Your task to perform on an android device: find snoozed emails in the gmail app Image 0: 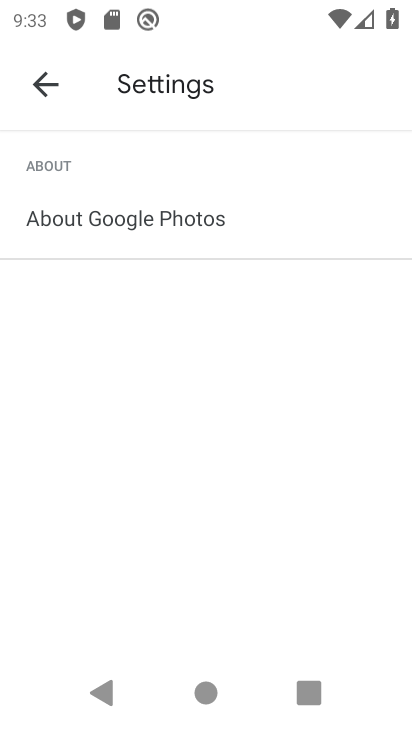
Step 0: press home button
Your task to perform on an android device: find snoozed emails in the gmail app Image 1: 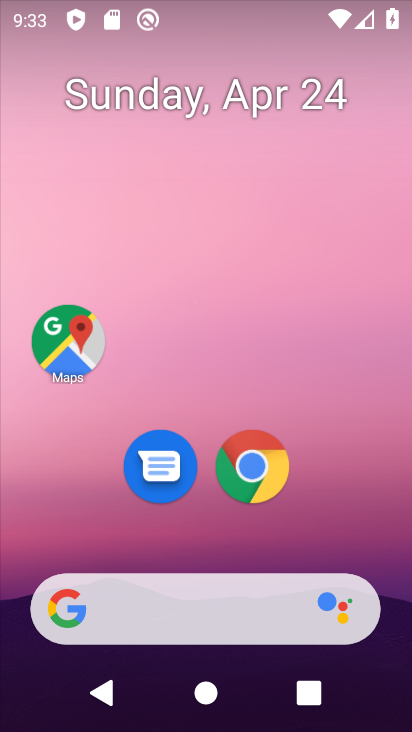
Step 1: drag from (344, 505) to (289, 58)
Your task to perform on an android device: find snoozed emails in the gmail app Image 2: 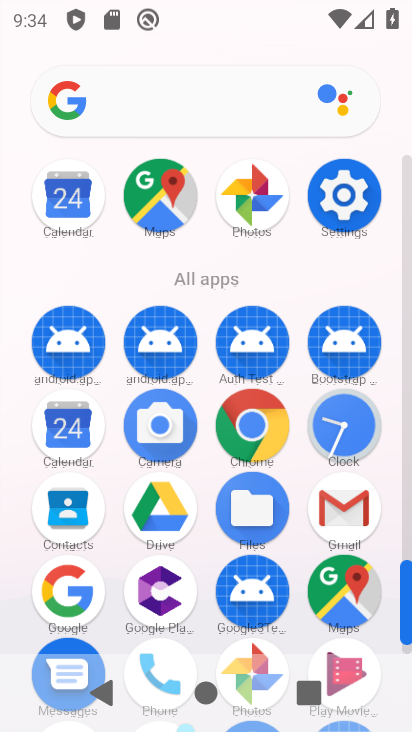
Step 2: click (354, 505)
Your task to perform on an android device: find snoozed emails in the gmail app Image 3: 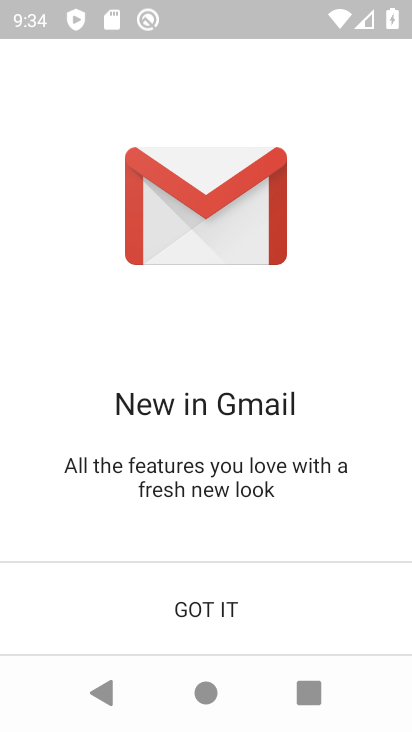
Step 3: click (230, 588)
Your task to perform on an android device: find snoozed emails in the gmail app Image 4: 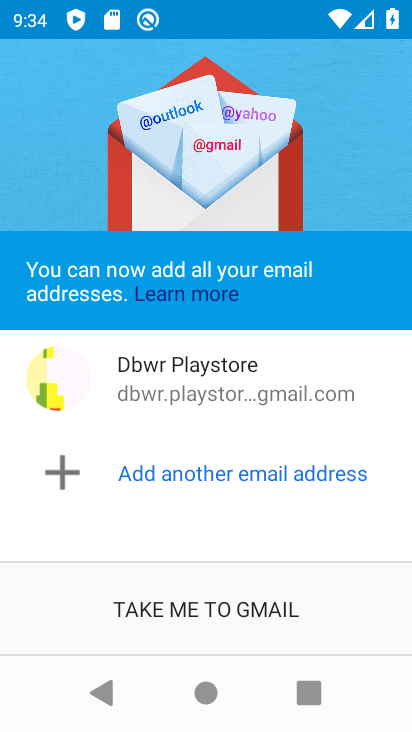
Step 4: click (246, 624)
Your task to perform on an android device: find snoozed emails in the gmail app Image 5: 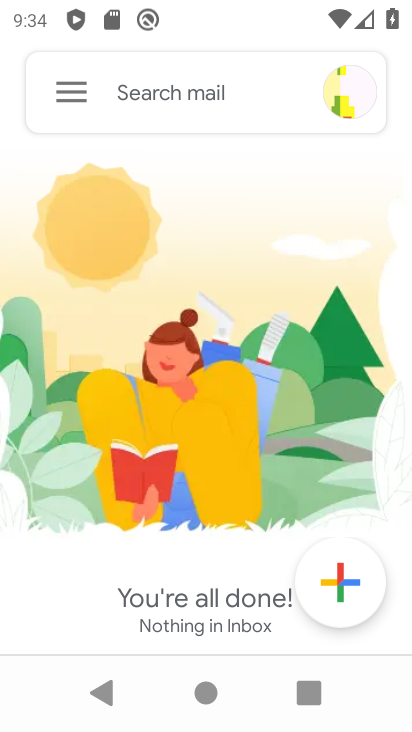
Step 5: click (65, 107)
Your task to perform on an android device: find snoozed emails in the gmail app Image 6: 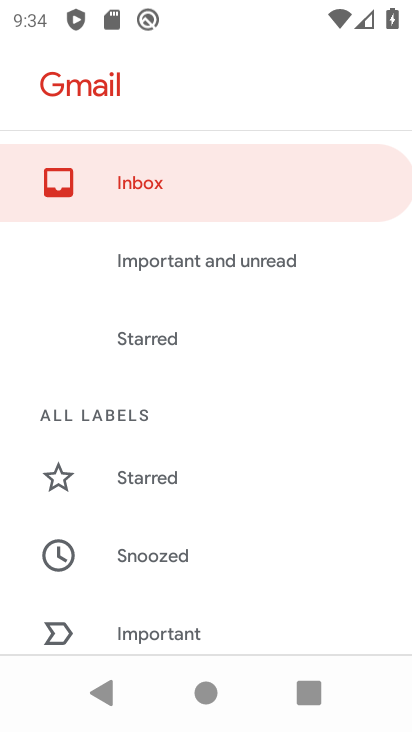
Step 6: drag from (240, 609) to (212, 324)
Your task to perform on an android device: find snoozed emails in the gmail app Image 7: 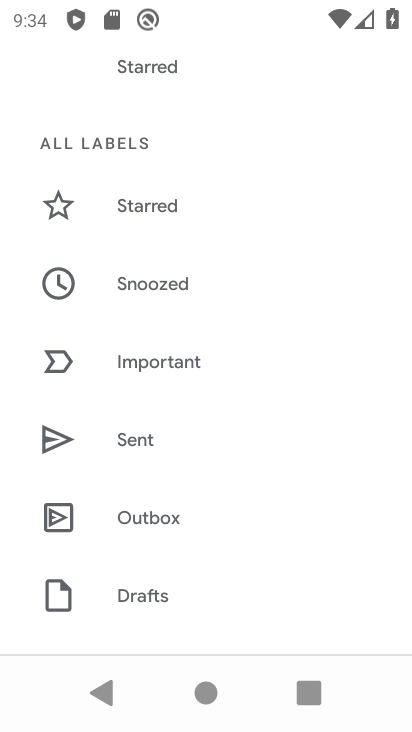
Step 7: click (196, 309)
Your task to perform on an android device: find snoozed emails in the gmail app Image 8: 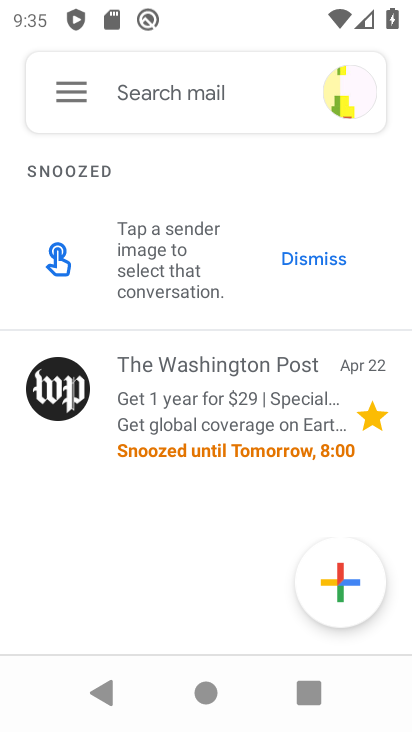
Step 8: task complete